Your task to perform on an android device: change the upload size in google photos Image 0: 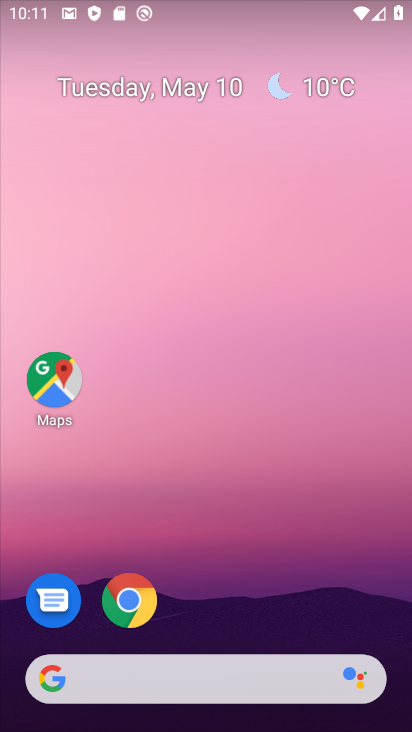
Step 0: drag from (203, 253) to (186, 153)
Your task to perform on an android device: change the upload size in google photos Image 1: 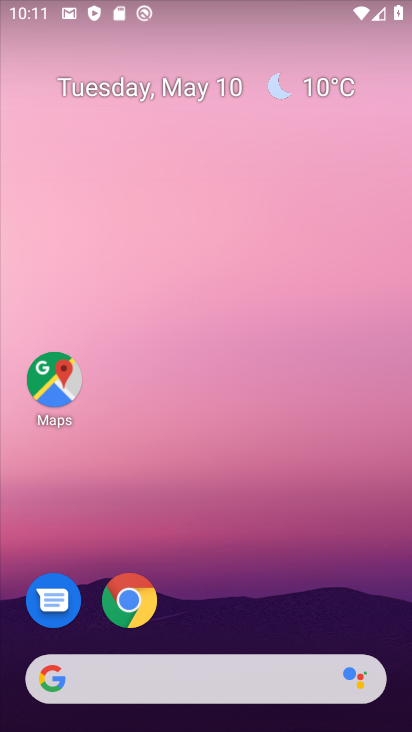
Step 1: drag from (228, 552) to (215, 133)
Your task to perform on an android device: change the upload size in google photos Image 2: 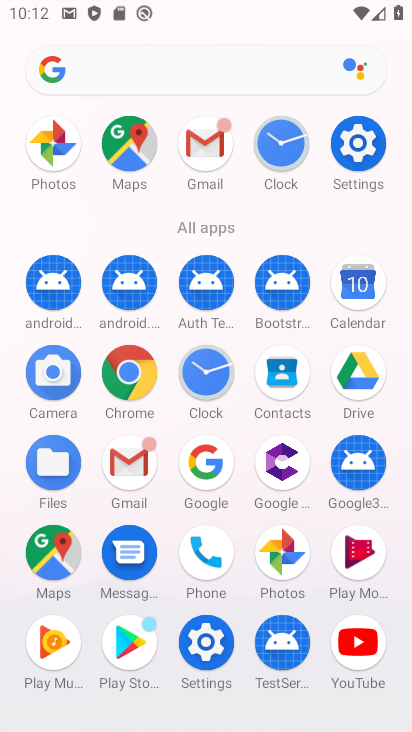
Step 2: click (282, 548)
Your task to perform on an android device: change the upload size in google photos Image 3: 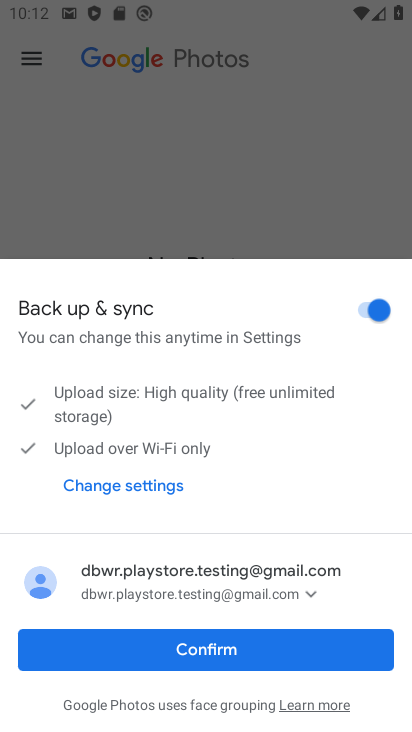
Step 3: click (260, 660)
Your task to perform on an android device: change the upload size in google photos Image 4: 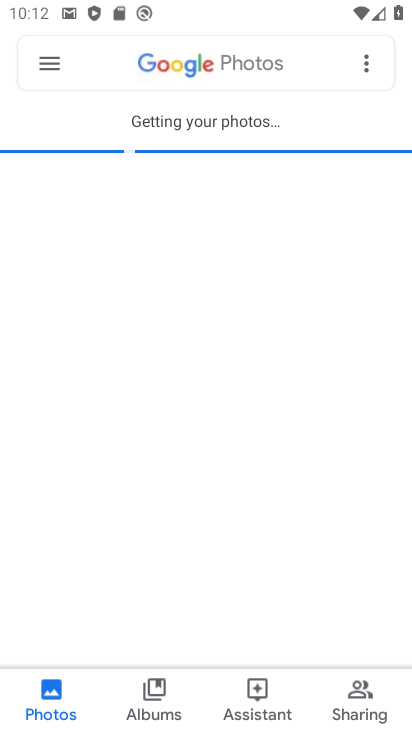
Step 4: click (45, 62)
Your task to perform on an android device: change the upload size in google photos Image 5: 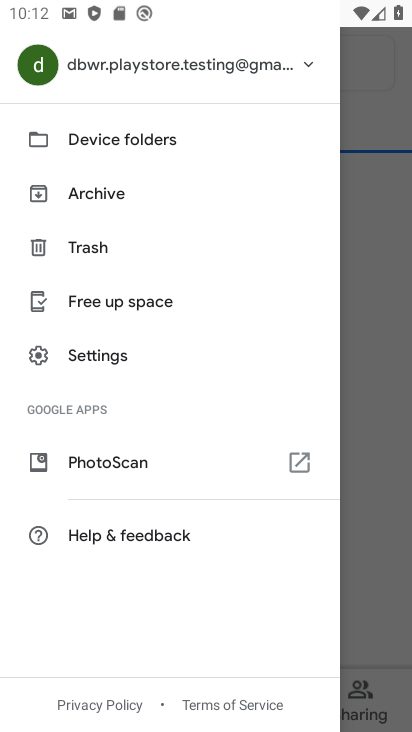
Step 5: click (121, 353)
Your task to perform on an android device: change the upload size in google photos Image 6: 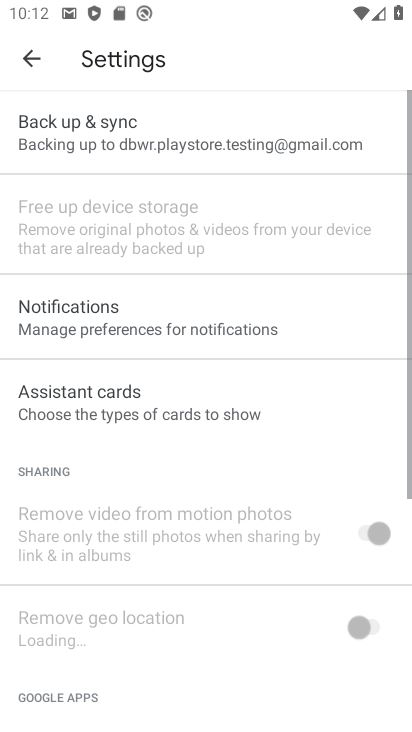
Step 6: click (134, 133)
Your task to perform on an android device: change the upload size in google photos Image 7: 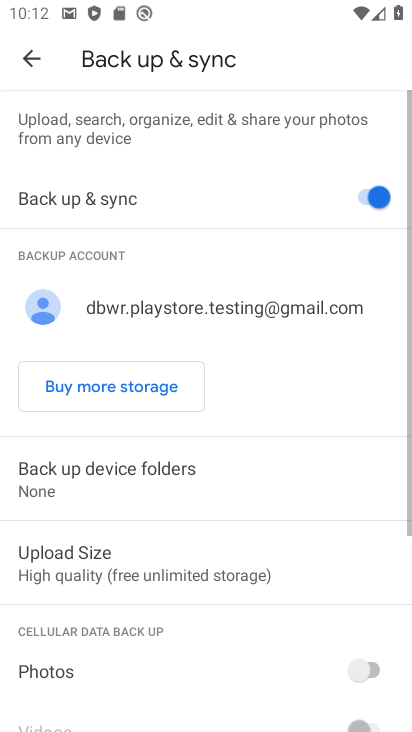
Step 7: click (91, 574)
Your task to perform on an android device: change the upload size in google photos Image 8: 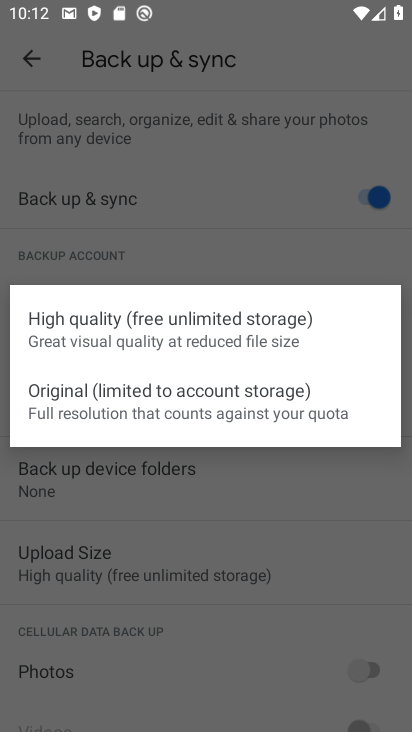
Step 8: click (90, 408)
Your task to perform on an android device: change the upload size in google photos Image 9: 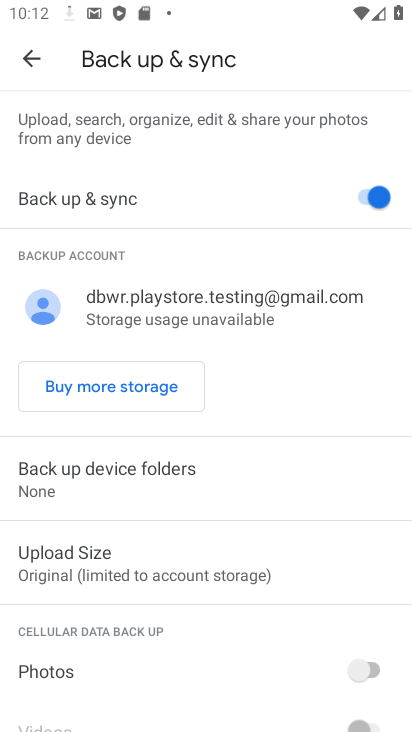
Step 9: task complete